Your task to perform on an android device: Go to privacy settings Image 0: 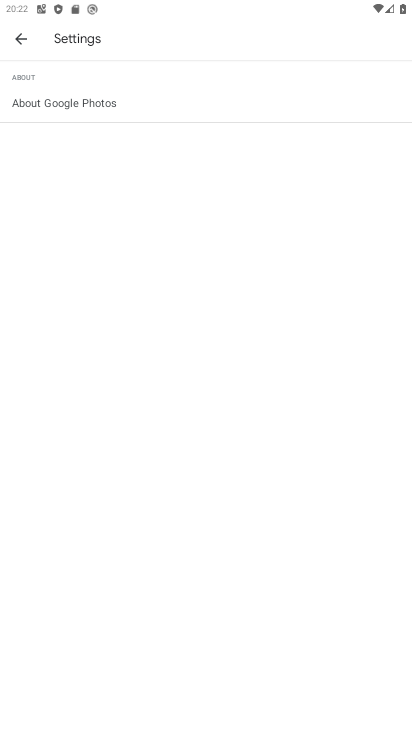
Step 0: press back button
Your task to perform on an android device: Go to privacy settings Image 1: 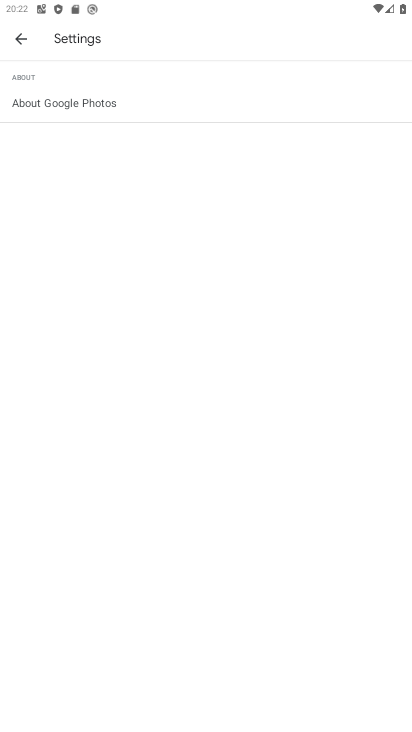
Step 1: press back button
Your task to perform on an android device: Go to privacy settings Image 2: 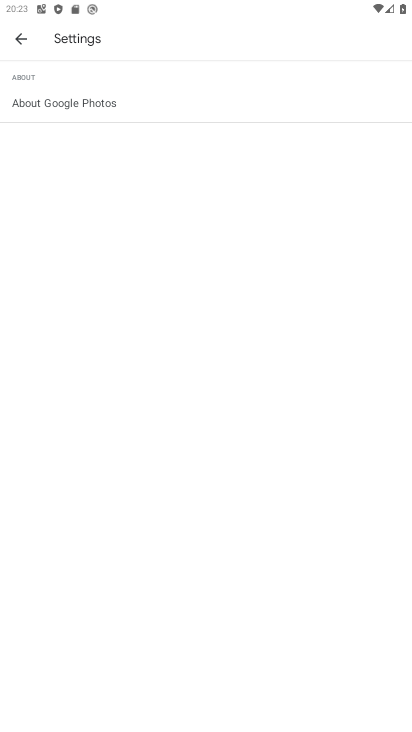
Step 2: press back button
Your task to perform on an android device: Go to privacy settings Image 3: 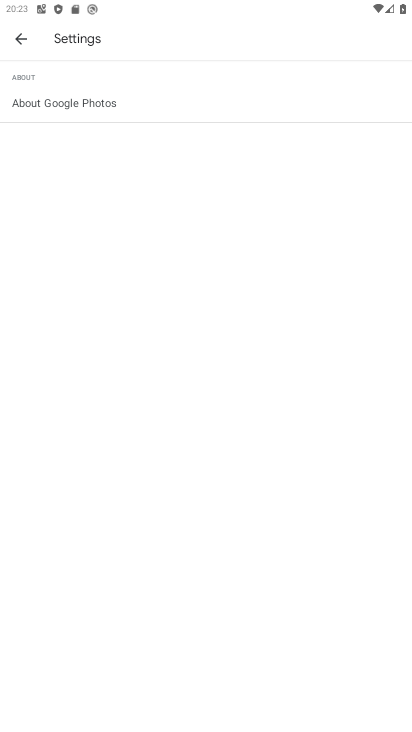
Step 3: press back button
Your task to perform on an android device: Go to privacy settings Image 4: 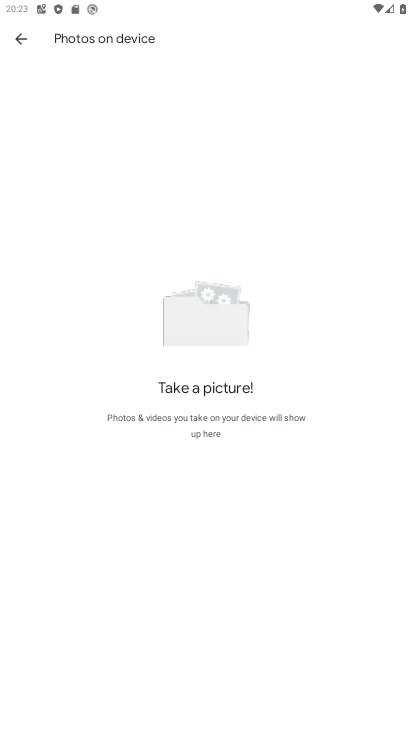
Step 4: press home button
Your task to perform on an android device: Go to privacy settings Image 5: 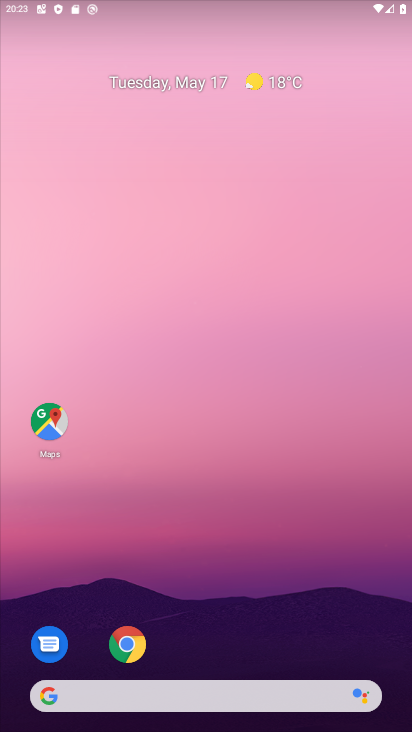
Step 5: drag from (196, 626) to (251, 94)
Your task to perform on an android device: Go to privacy settings Image 6: 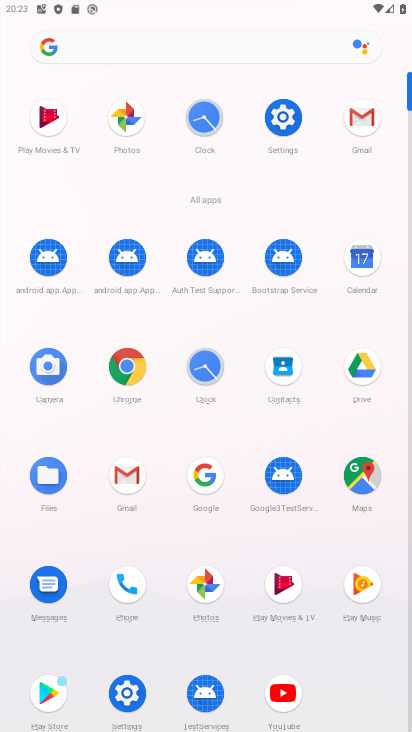
Step 6: click (288, 112)
Your task to perform on an android device: Go to privacy settings Image 7: 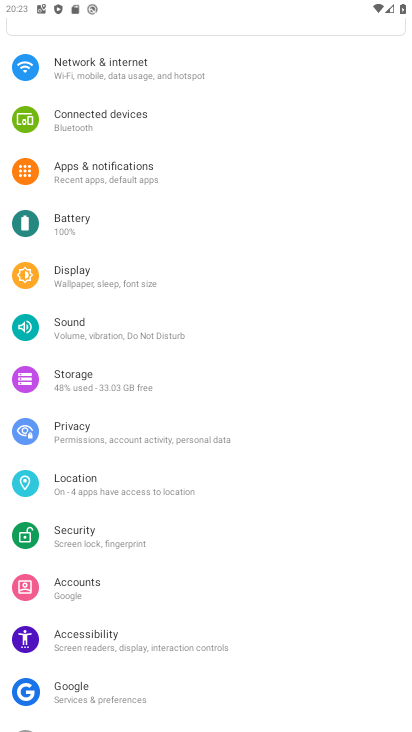
Step 7: click (76, 426)
Your task to perform on an android device: Go to privacy settings Image 8: 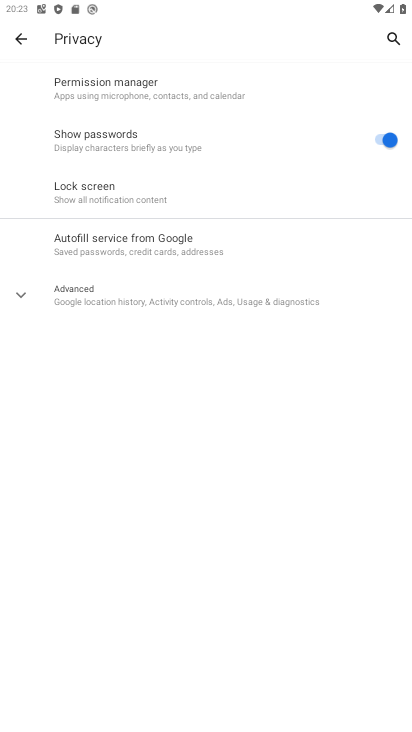
Step 8: task complete